Your task to perform on an android device: Check the weather Image 0: 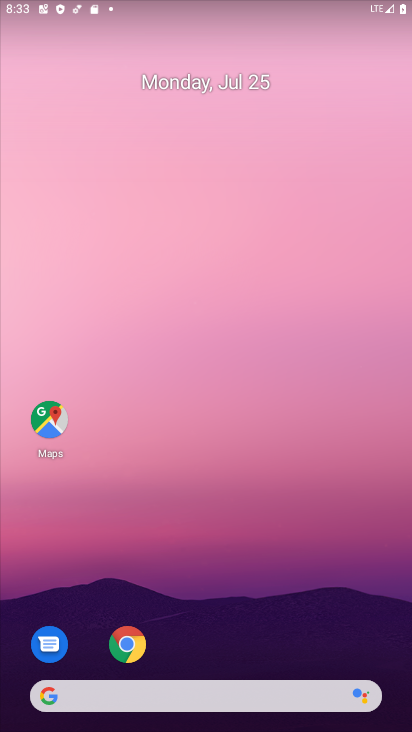
Step 0: drag from (232, 626) to (253, 159)
Your task to perform on an android device: Check the weather Image 1: 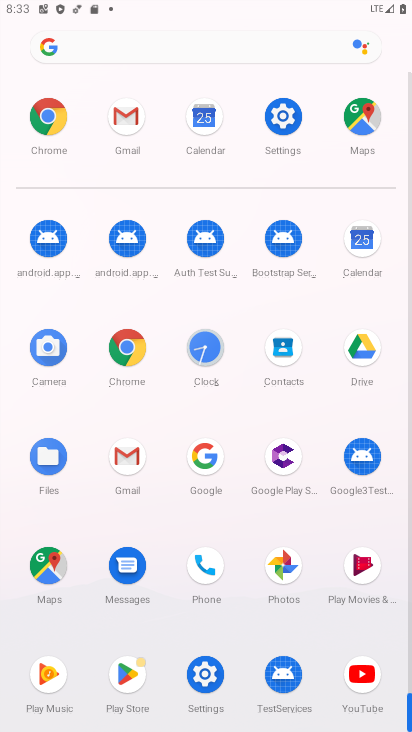
Step 1: click (121, 357)
Your task to perform on an android device: Check the weather Image 2: 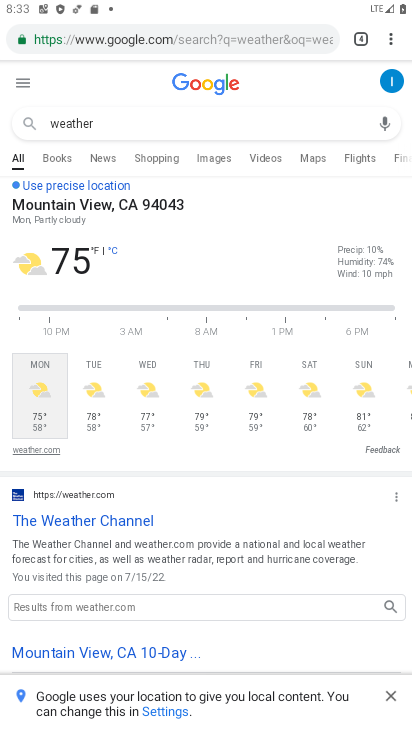
Step 2: task complete